Your task to perform on an android device: When is my next appointment? Image 0: 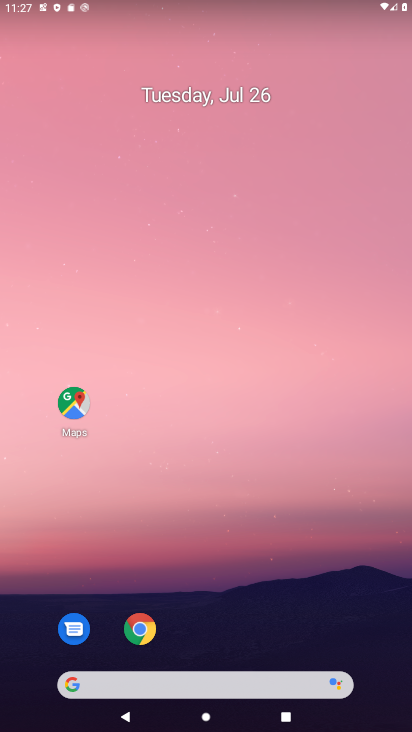
Step 0: drag from (256, 623) to (247, 115)
Your task to perform on an android device: When is my next appointment? Image 1: 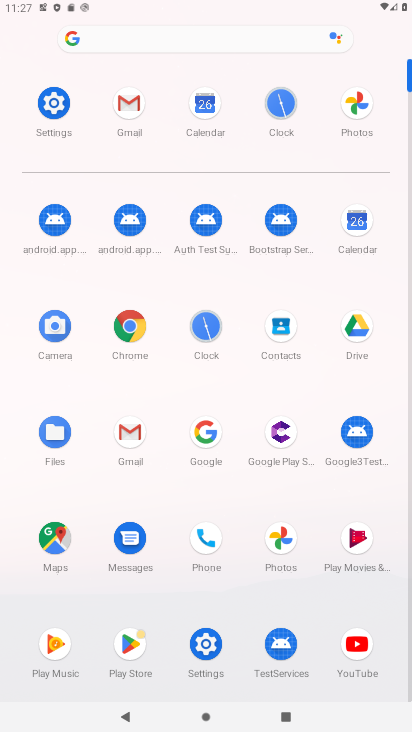
Step 1: click (69, 114)
Your task to perform on an android device: When is my next appointment? Image 2: 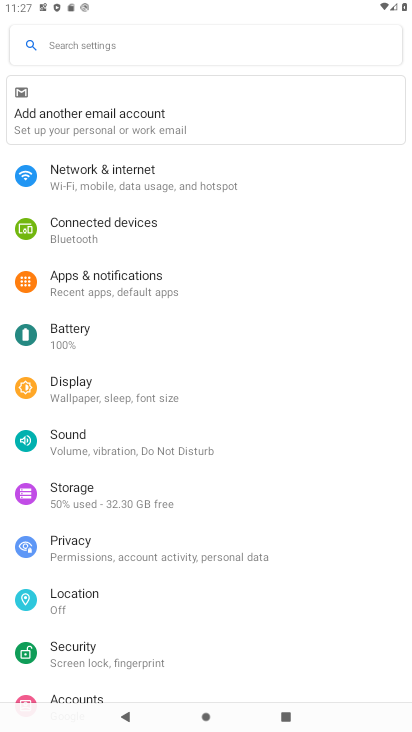
Step 2: press home button
Your task to perform on an android device: When is my next appointment? Image 3: 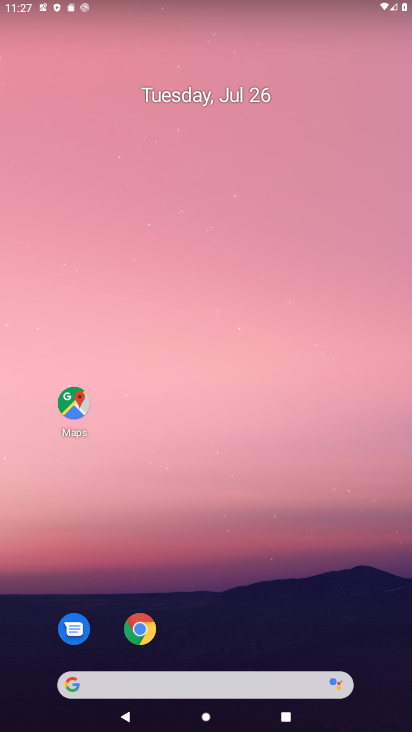
Step 3: drag from (242, 623) to (230, 247)
Your task to perform on an android device: When is my next appointment? Image 4: 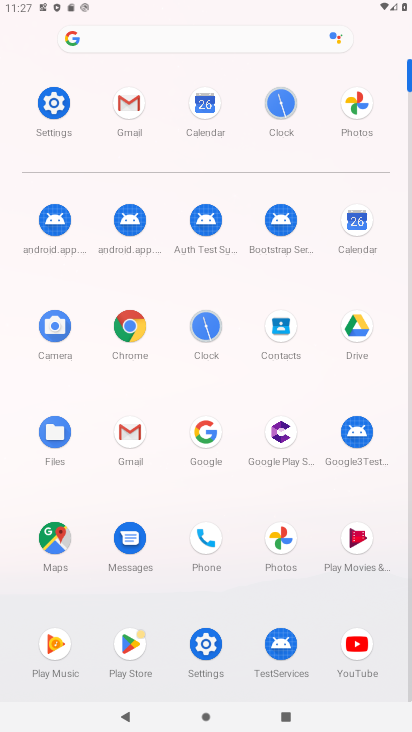
Step 4: click (359, 232)
Your task to perform on an android device: When is my next appointment? Image 5: 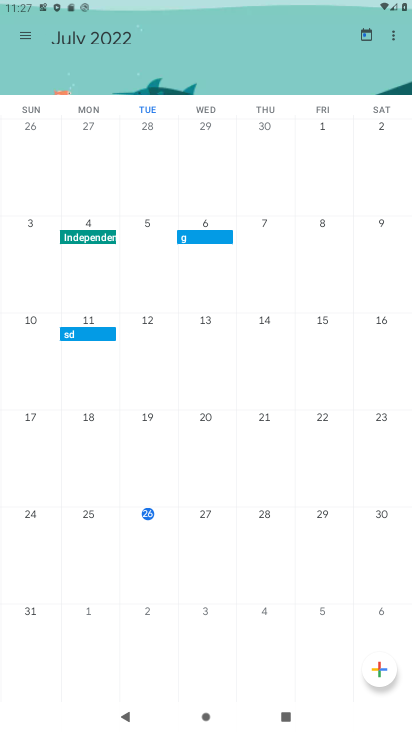
Step 5: click (32, 38)
Your task to perform on an android device: When is my next appointment? Image 6: 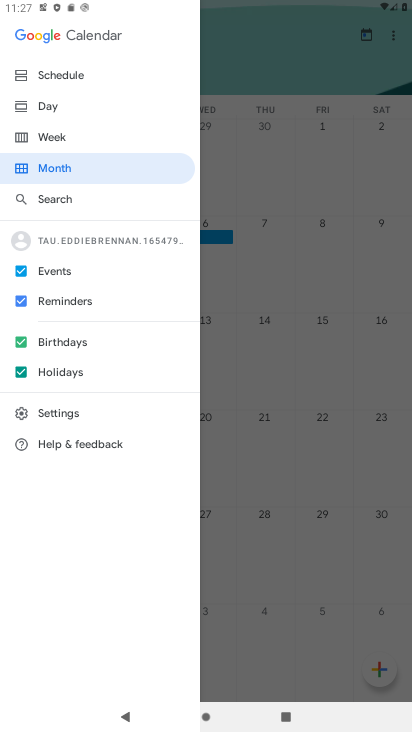
Step 6: click (63, 172)
Your task to perform on an android device: When is my next appointment? Image 7: 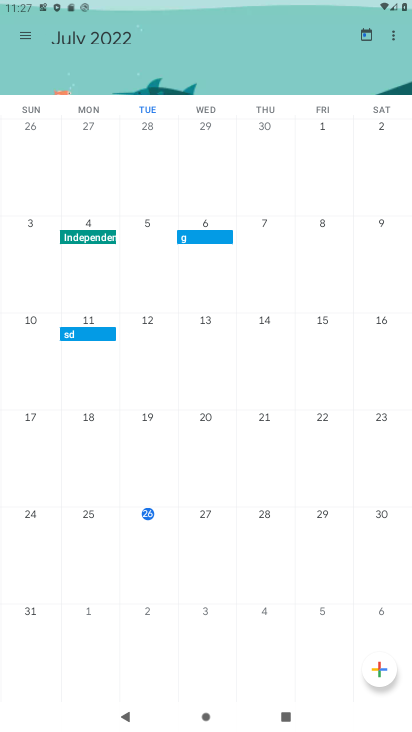
Step 7: task complete